Your task to perform on an android device: Is it going to rain today? Image 0: 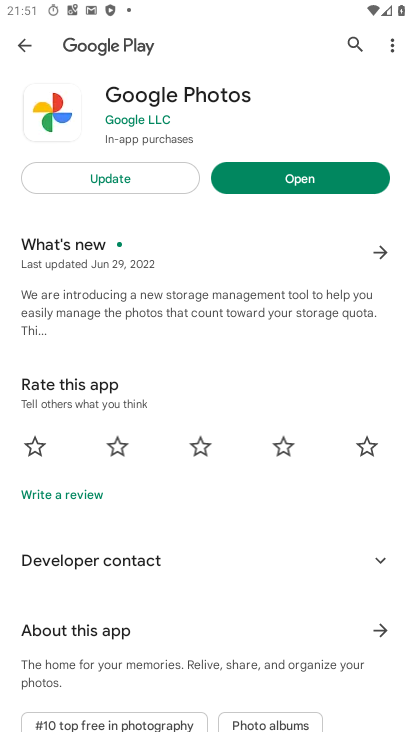
Step 0: click (8, 708)
Your task to perform on an android device: Is it going to rain today? Image 1: 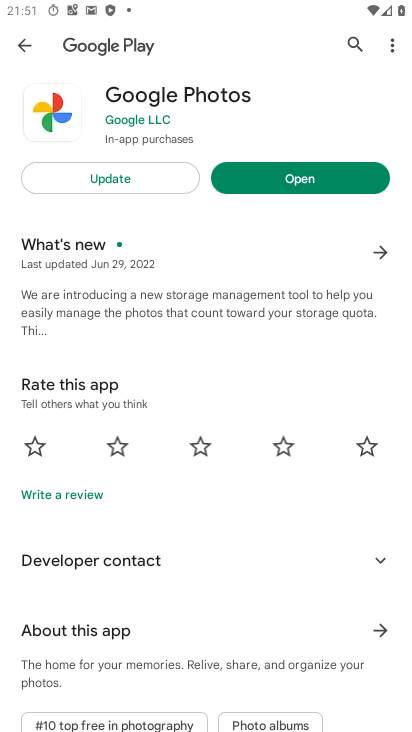
Step 1: press home button
Your task to perform on an android device: Is it going to rain today? Image 2: 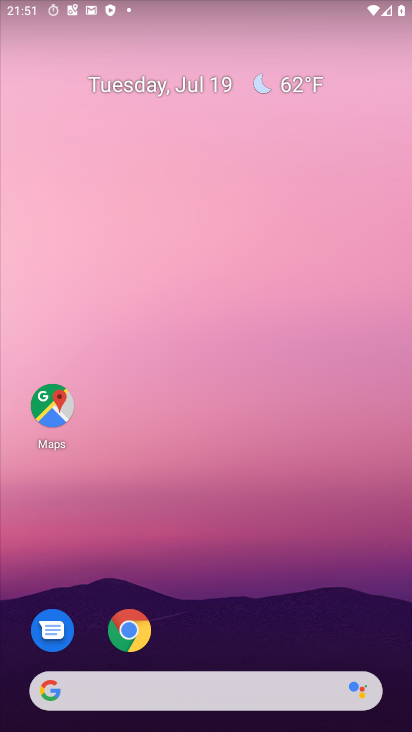
Step 2: click (89, 698)
Your task to perform on an android device: Is it going to rain today? Image 3: 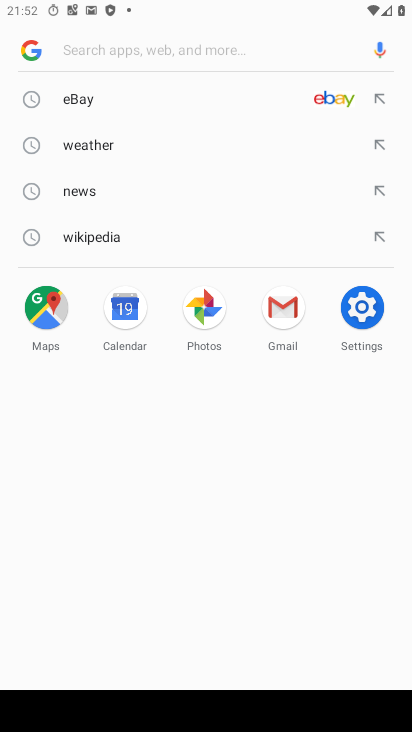
Step 3: type "Is it going to rain today?"
Your task to perform on an android device: Is it going to rain today? Image 4: 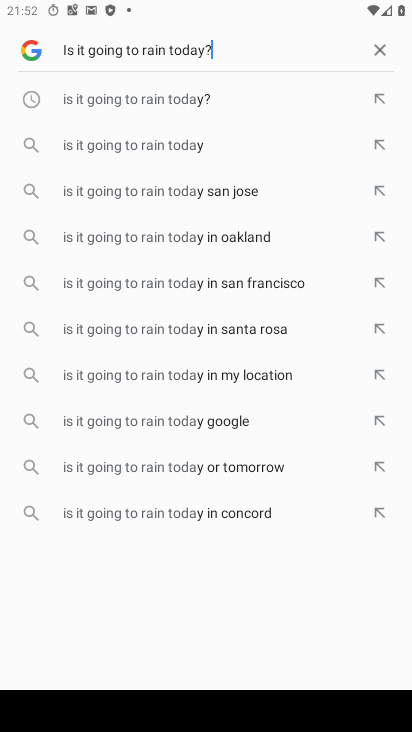
Step 4: type ""
Your task to perform on an android device: Is it going to rain today? Image 5: 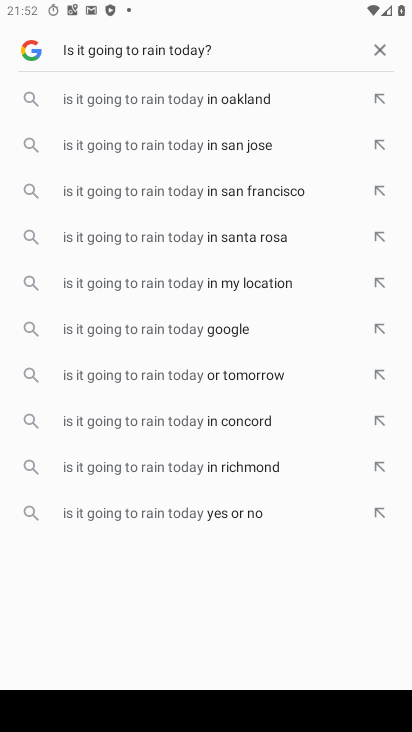
Step 5: type ""
Your task to perform on an android device: Is it going to rain today? Image 6: 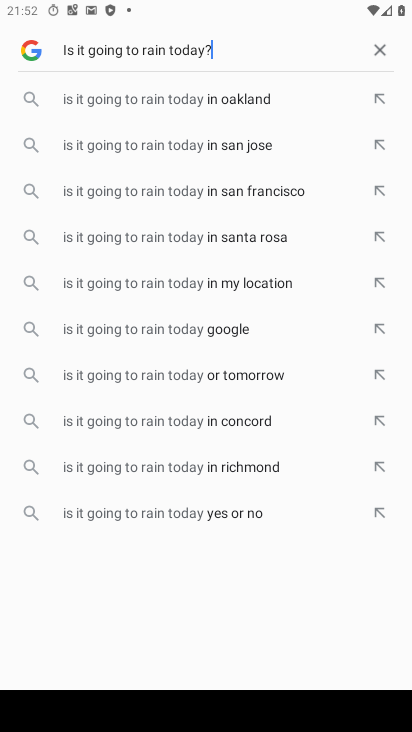
Step 6: type ""
Your task to perform on an android device: Is it going to rain today? Image 7: 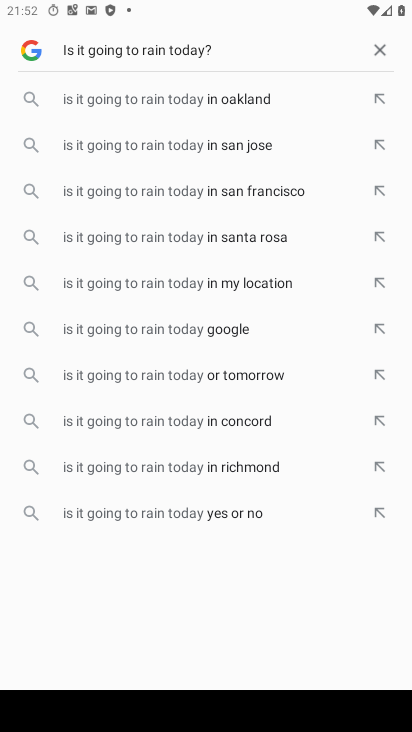
Step 7: type ""
Your task to perform on an android device: Is it going to rain today? Image 8: 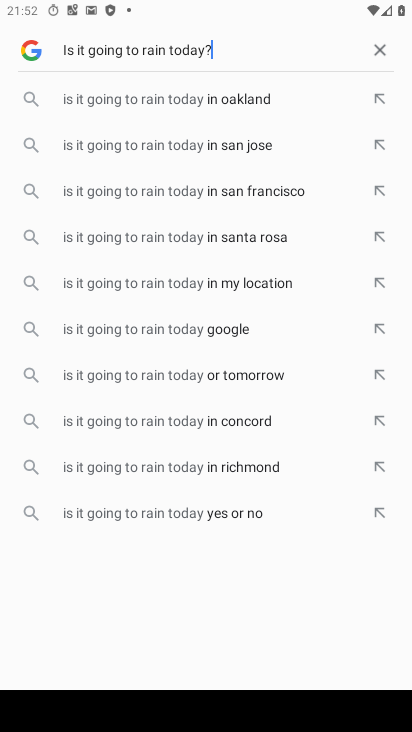
Step 8: task complete